Your task to perform on an android device: Is it going to rain this weekend? Image 0: 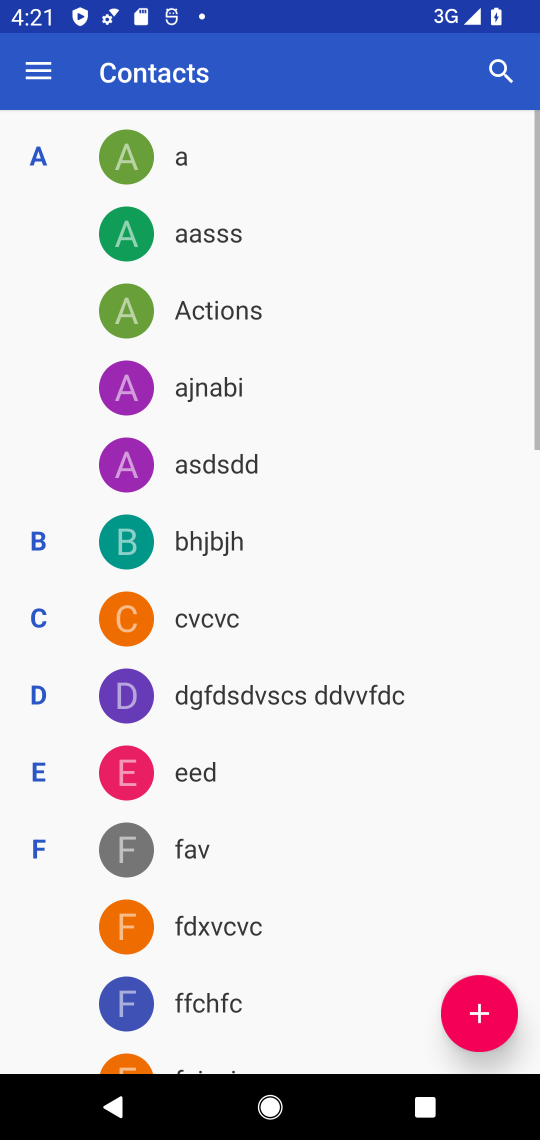
Step 0: press home button
Your task to perform on an android device: Is it going to rain this weekend? Image 1: 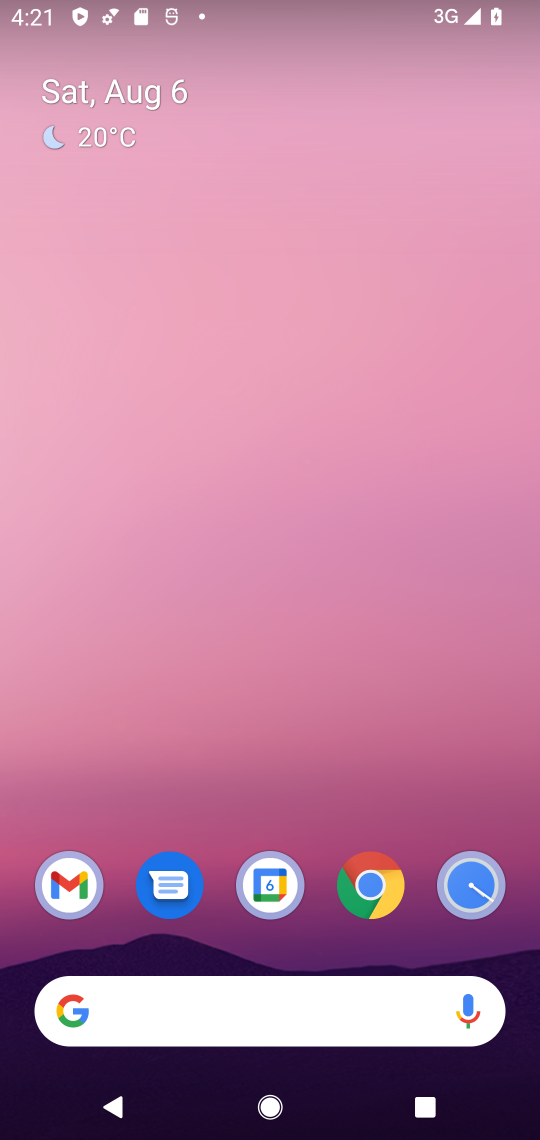
Step 1: drag from (422, 972) to (277, 58)
Your task to perform on an android device: Is it going to rain this weekend? Image 2: 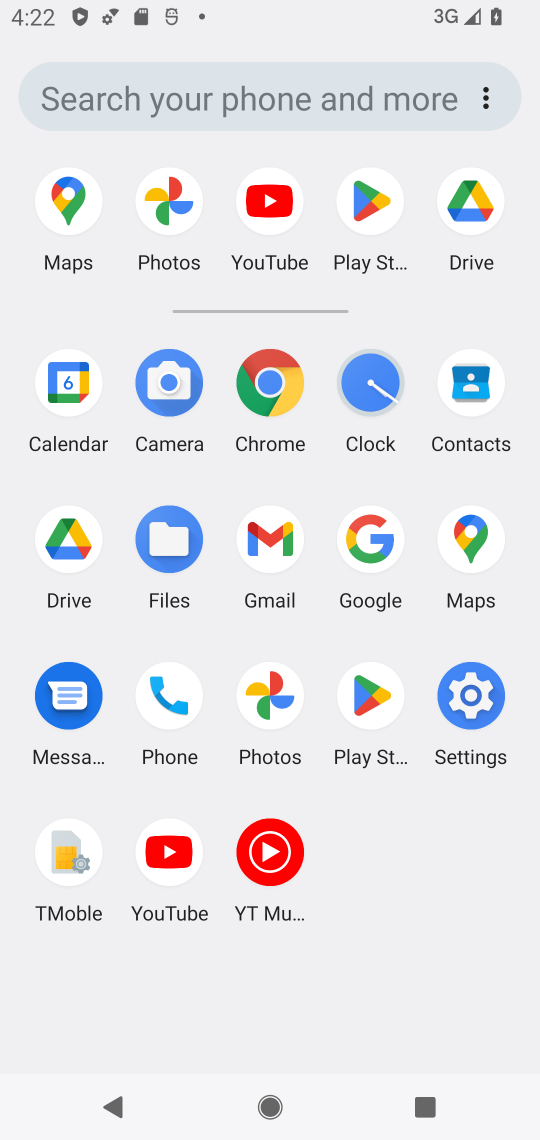
Step 2: click (389, 535)
Your task to perform on an android device: Is it going to rain this weekend? Image 3: 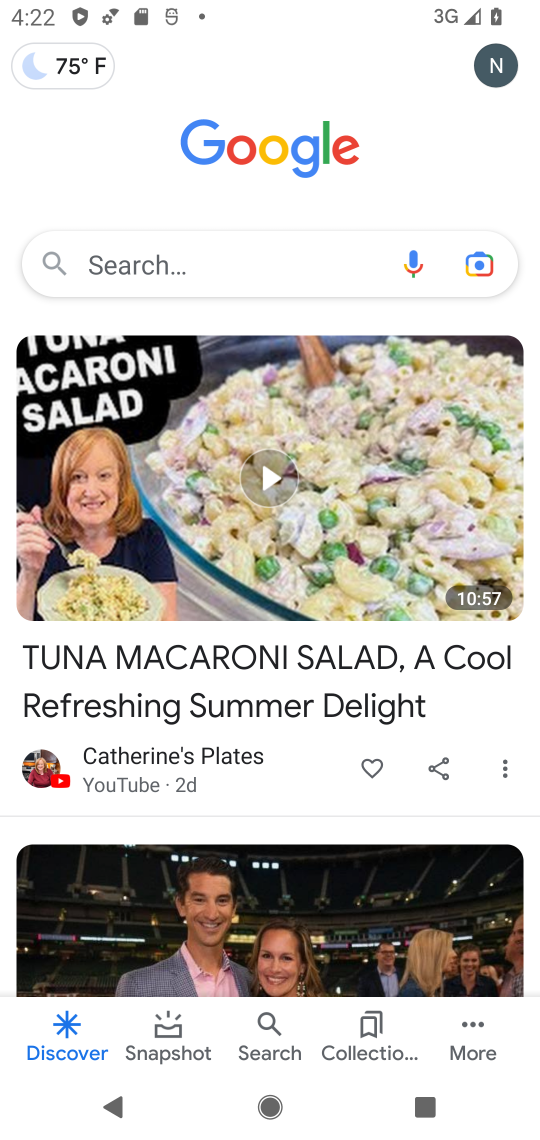
Step 3: click (166, 264)
Your task to perform on an android device: Is it going to rain this weekend? Image 4: 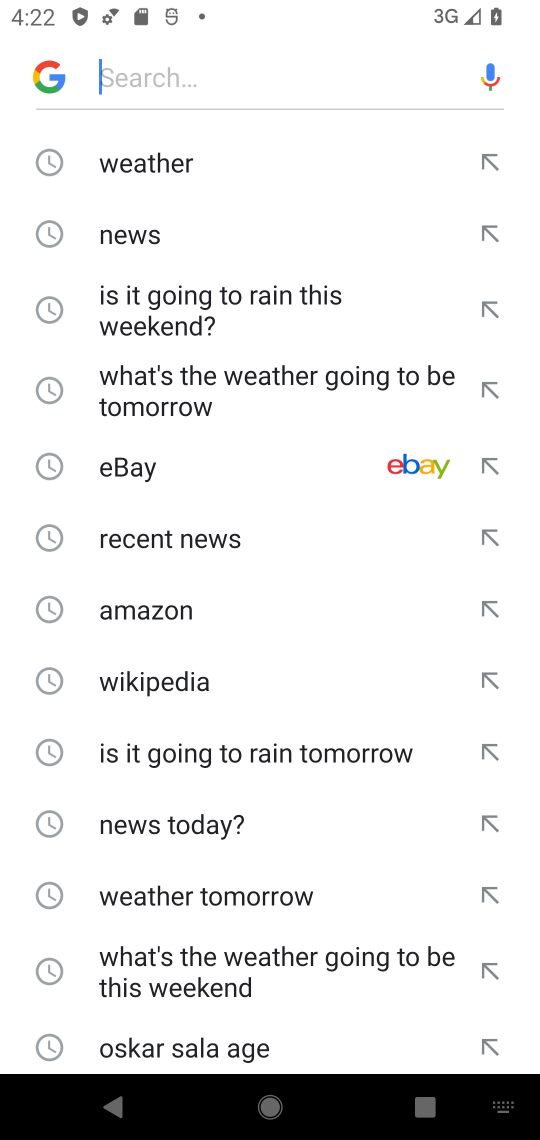
Step 4: click (173, 325)
Your task to perform on an android device: Is it going to rain this weekend? Image 5: 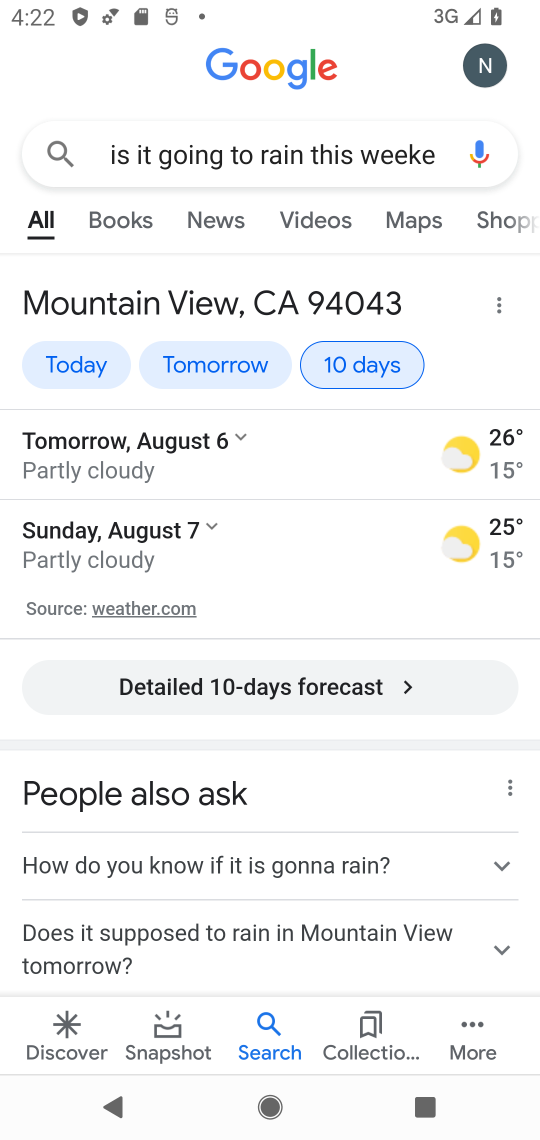
Step 5: task complete